Your task to perform on an android device: Search for Mexican restaurants on Maps Image 0: 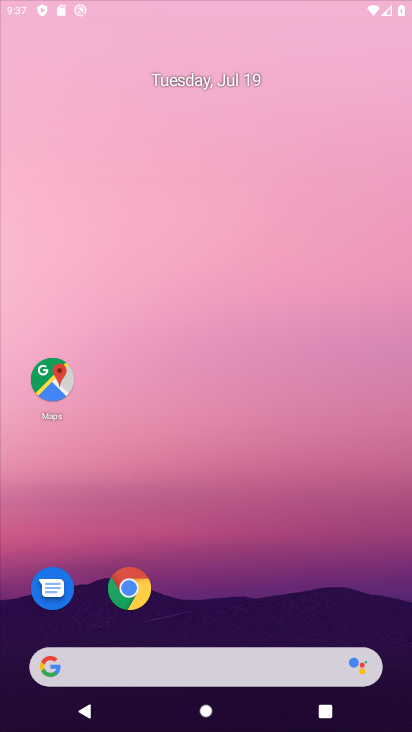
Step 0: click (190, 158)
Your task to perform on an android device: Search for Mexican restaurants on Maps Image 1: 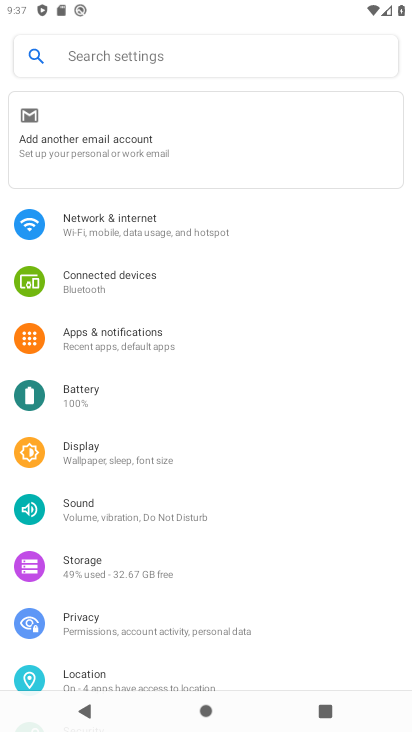
Step 1: press back button
Your task to perform on an android device: Search for Mexican restaurants on Maps Image 2: 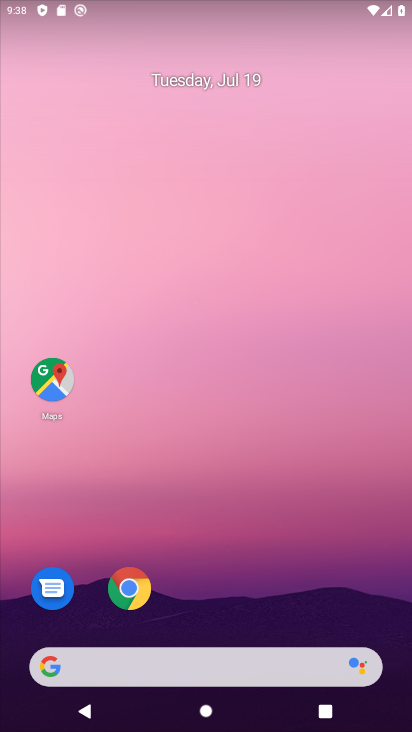
Step 2: drag from (267, 702) to (160, 146)
Your task to perform on an android device: Search for Mexican restaurants on Maps Image 3: 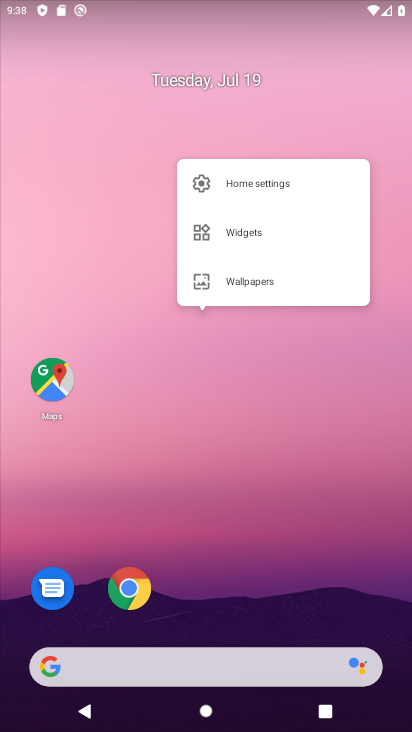
Step 3: drag from (215, 614) to (154, 152)
Your task to perform on an android device: Search for Mexican restaurants on Maps Image 4: 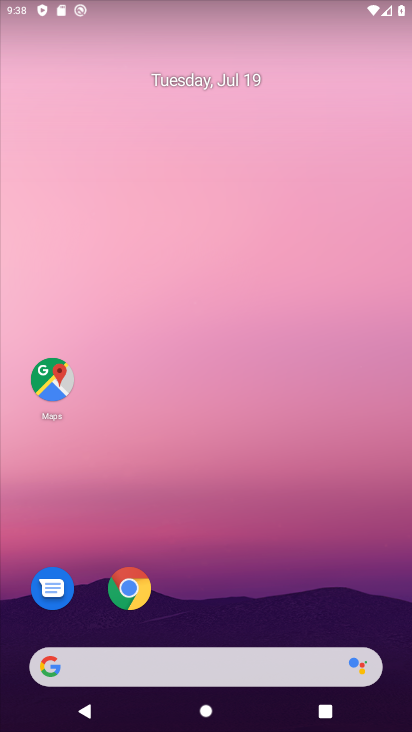
Step 4: drag from (240, 670) to (250, 312)
Your task to perform on an android device: Search for Mexican restaurants on Maps Image 5: 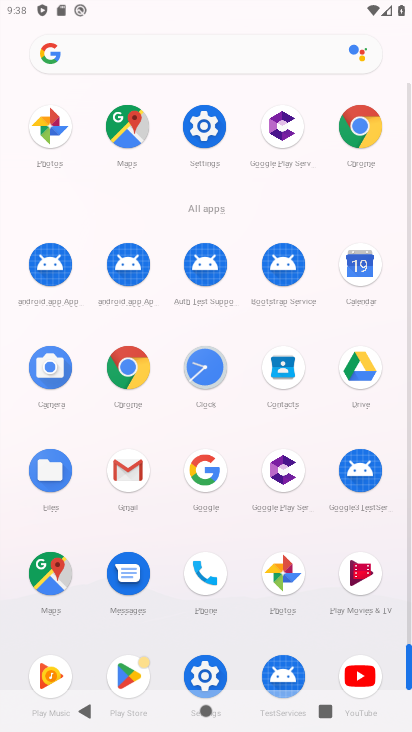
Step 5: drag from (190, 524) to (187, 211)
Your task to perform on an android device: Search for Mexican restaurants on Maps Image 6: 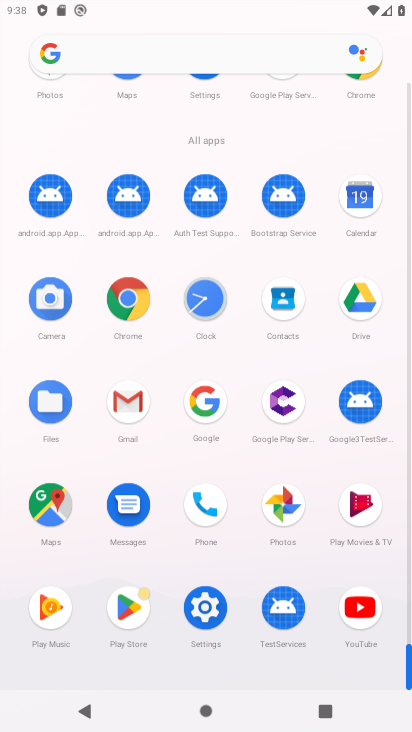
Step 6: drag from (265, 528) to (273, 304)
Your task to perform on an android device: Search for Mexican restaurants on Maps Image 7: 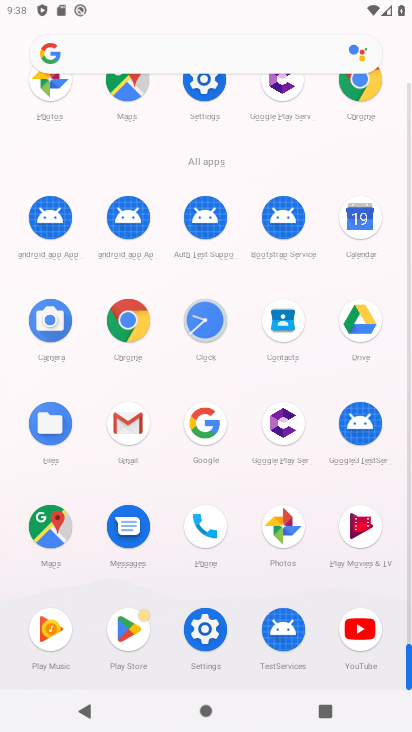
Step 7: click (57, 520)
Your task to perform on an android device: Search for Mexican restaurants on Maps Image 8: 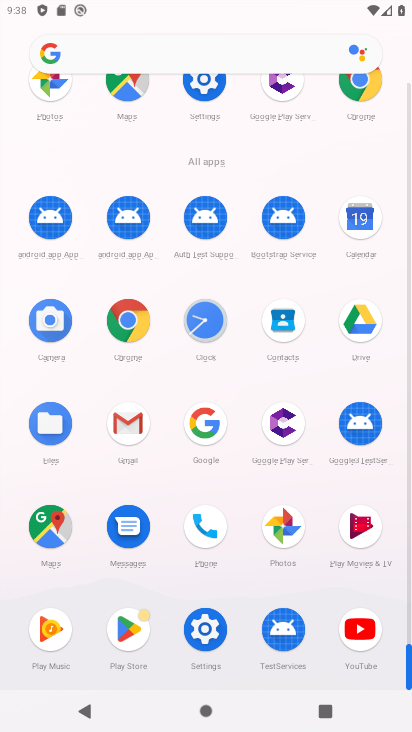
Step 8: click (58, 515)
Your task to perform on an android device: Search for Mexican restaurants on Maps Image 9: 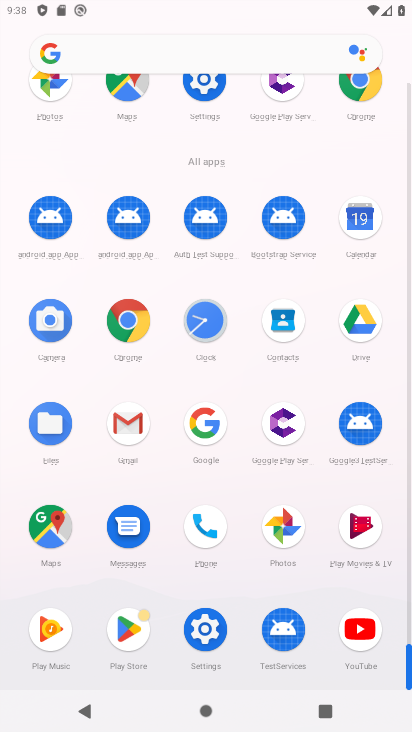
Step 9: click (58, 515)
Your task to perform on an android device: Search for Mexican restaurants on Maps Image 10: 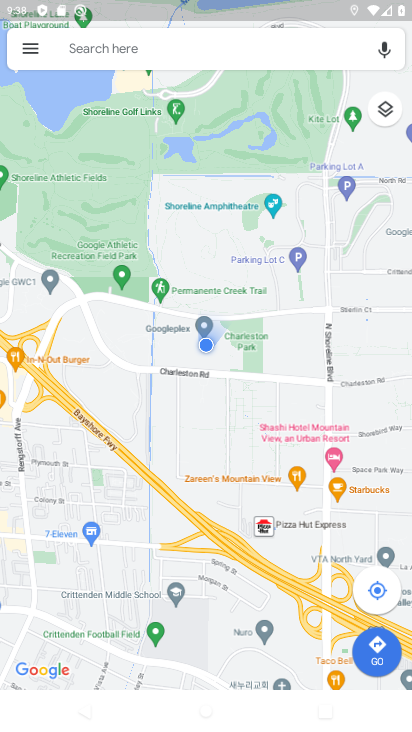
Step 10: click (91, 51)
Your task to perform on an android device: Search for Mexican restaurants on Maps Image 11: 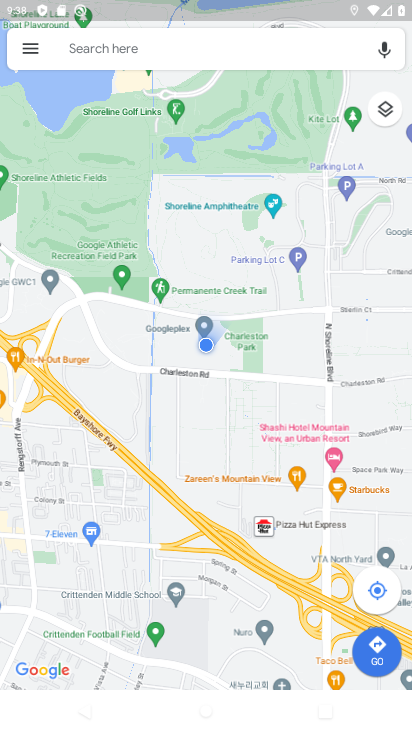
Step 11: click (91, 50)
Your task to perform on an android device: Search for Mexican restaurants on Maps Image 12: 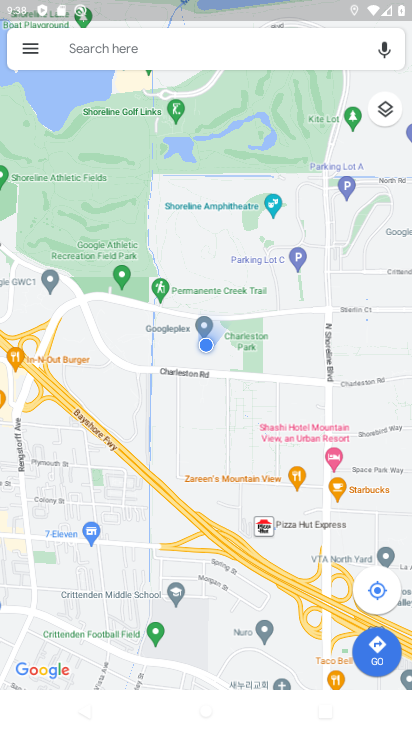
Step 12: click (91, 50)
Your task to perform on an android device: Search for Mexican restaurants on Maps Image 13: 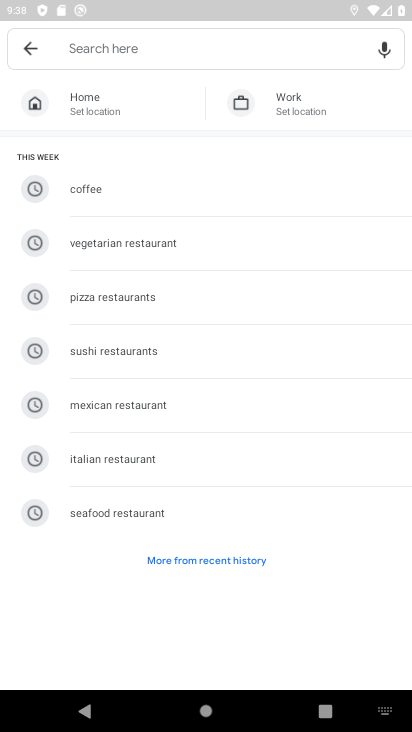
Step 13: click (151, 409)
Your task to perform on an android device: Search for Mexican restaurants on Maps Image 14: 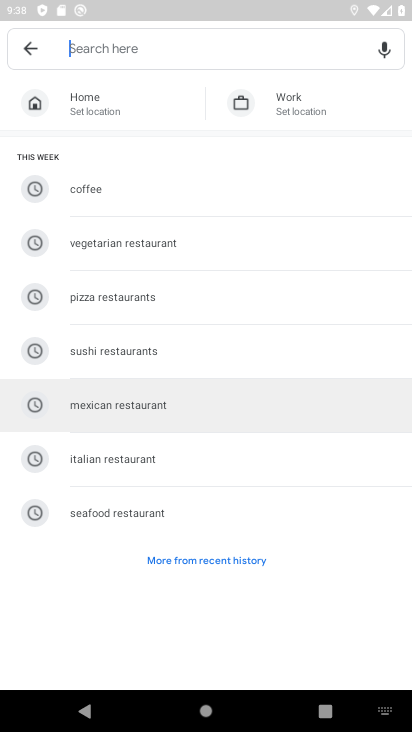
Step 14: click (157, 403)
Your task to perform on an android device: Search for Mexican restaurants on Maps Image 15: 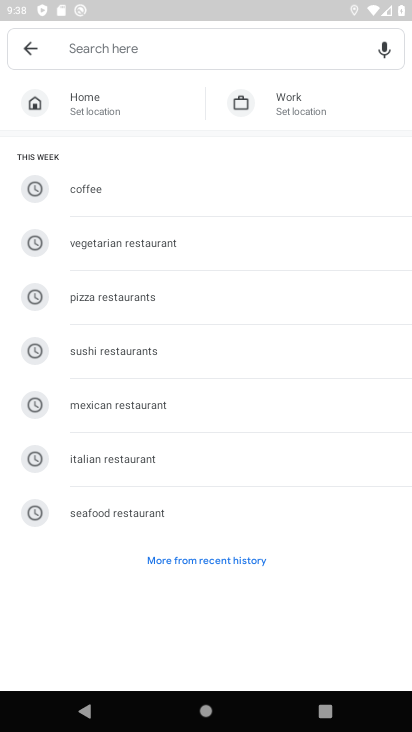
Step 15: click (157, 403)
Your task to perform on an android device: Search for Mexican restaurants on Maps Image 16: 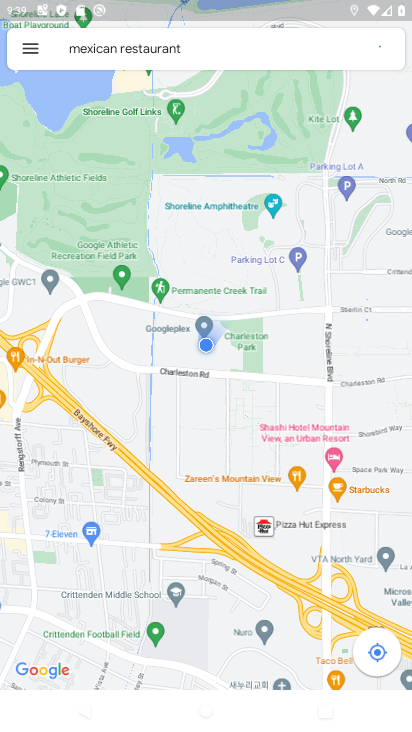
Step 16: task complete